Your task to perform on an android device: turn notification dots on Image 0: 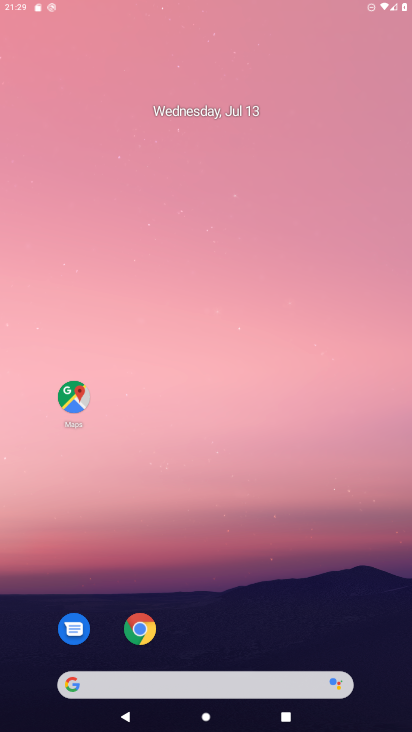
Step 0: drag from (244, 607) to (211, 186)
Your task to perform on an android device: turn notification dots on Image 1: 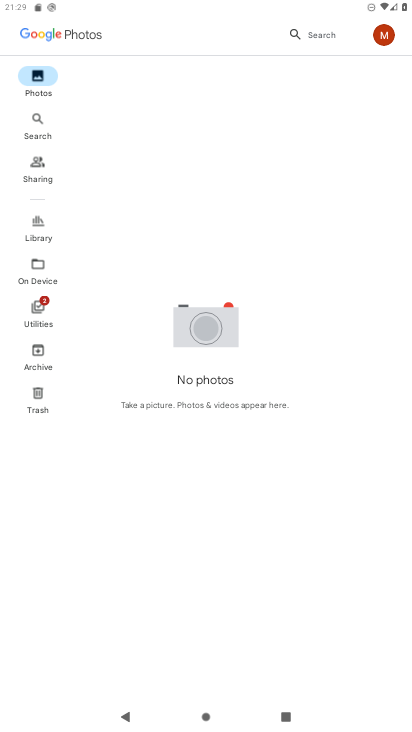
Step 1: press home button
Your task to perform on an android device: turn notification dots on Image 2: 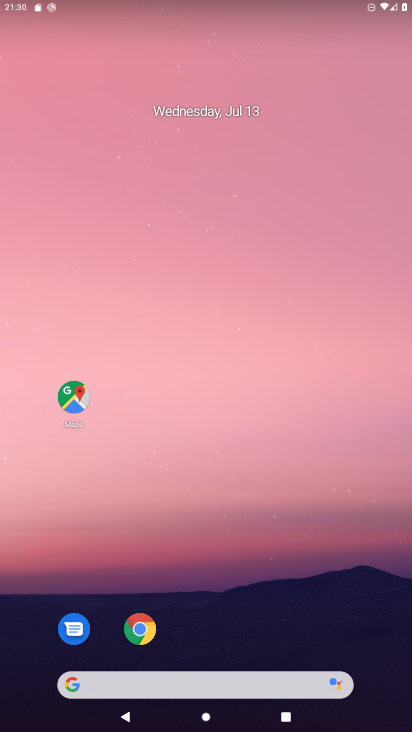
Step 2: drag from (216, 630) to (234, 39)
Your task to perform on an android device: turn notification dots on Image 3: 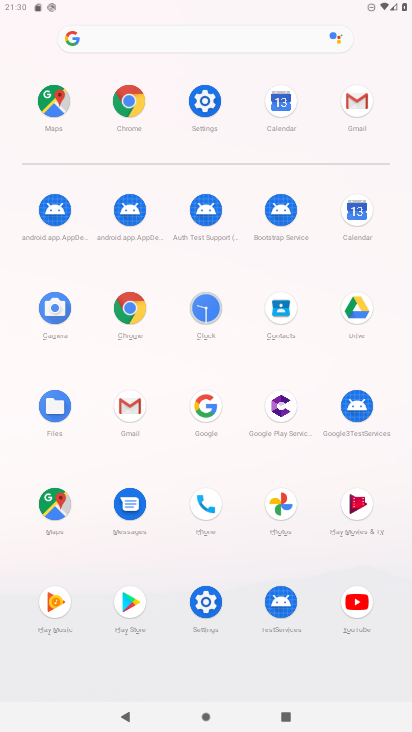
Step 3: click (207, 94)
Your task to perform on an android device: turn notification dots on Image 4: 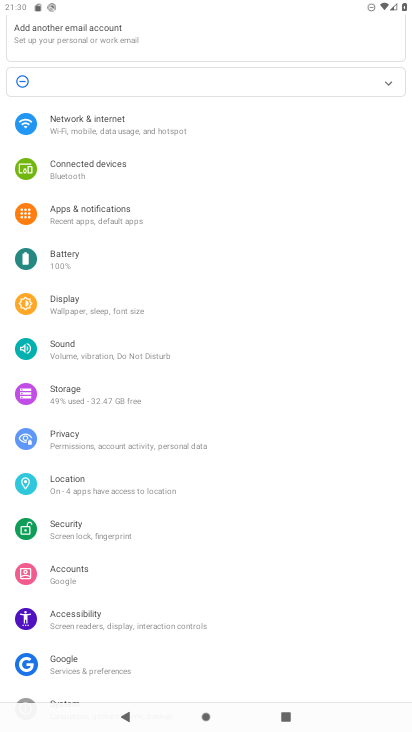
Step 4: click (94, 209)
Your task to perform on an android device: turn notification dots on Image 5: 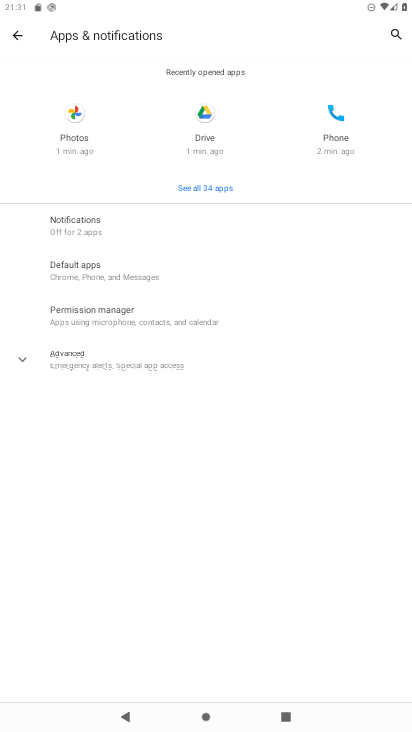
Step 5: click (55, 219)
Your task to perform on an android device: turn notification dots on Image 6: 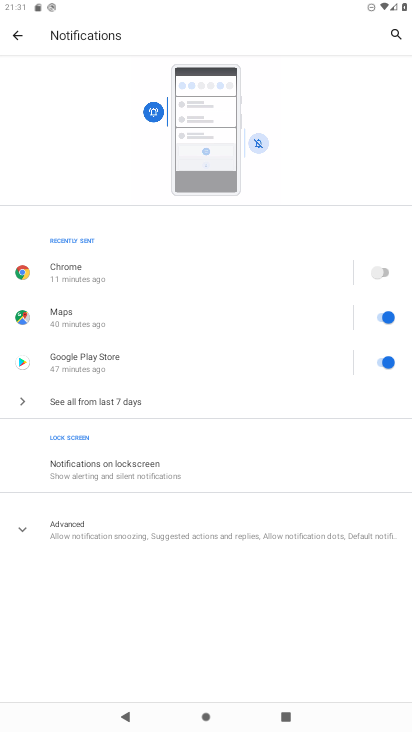
Step 6: click (96, 540)
Your task to perform on an android device: turn notification dots on Image 7: 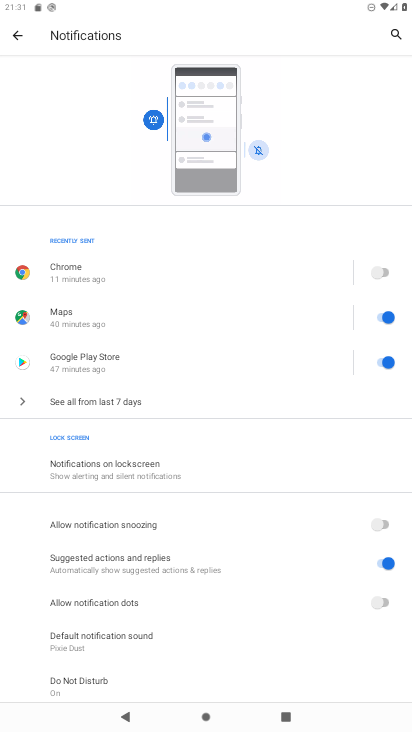
Step 7: drag from (260, 650) to (228, 276)
Your task to perform on an android device: turn notification dots on Image 8: 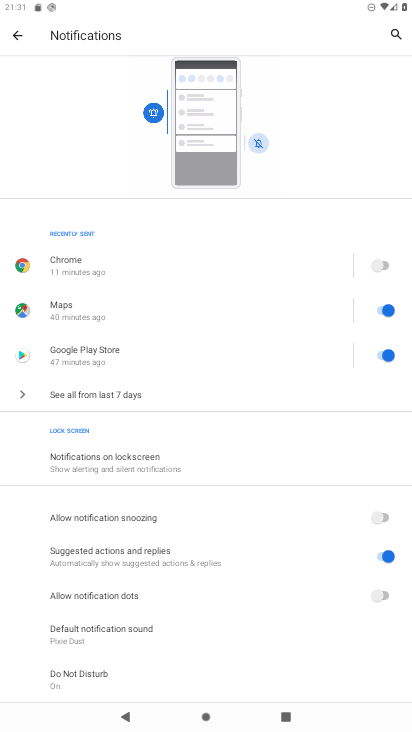
Step 8: click (387, 589)
Your task to perform on an android device: turn notification dots on Image 9: 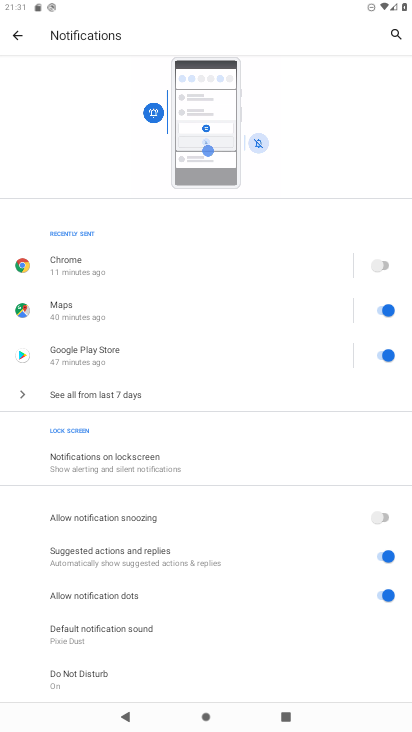
Step 9: task complete